Your task to perform on an android device: change the clock style Image 0: 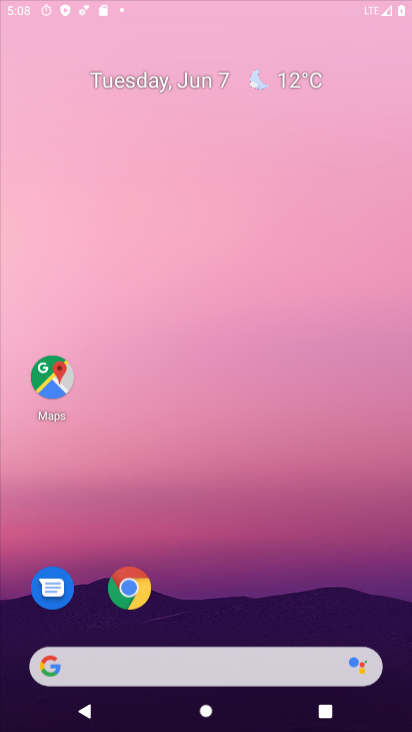
Step 0: drag from (193, 286) to (188, 10)
Your task to perform on an android device: change the clock style Image 1: 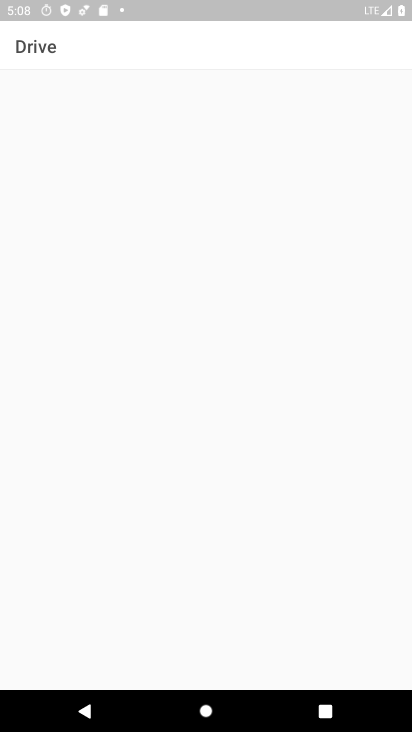
Step 1: press home button
Your task to perform on an android device: change the clock style Image 2: 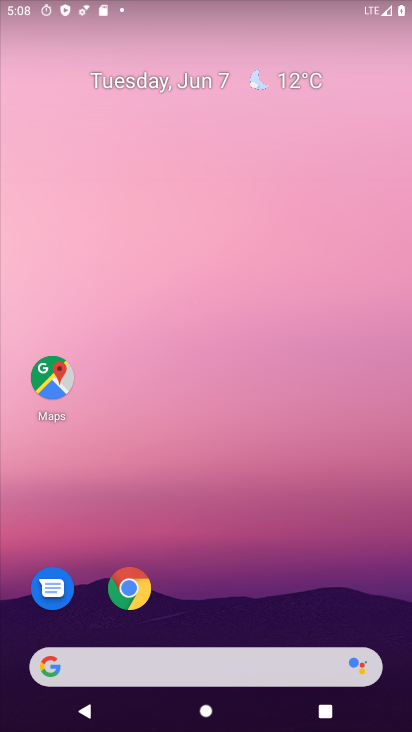
Step 2: drag from (206, 639) to (182, 122)
Your task to perform on an android device: change the clock style Image 3: 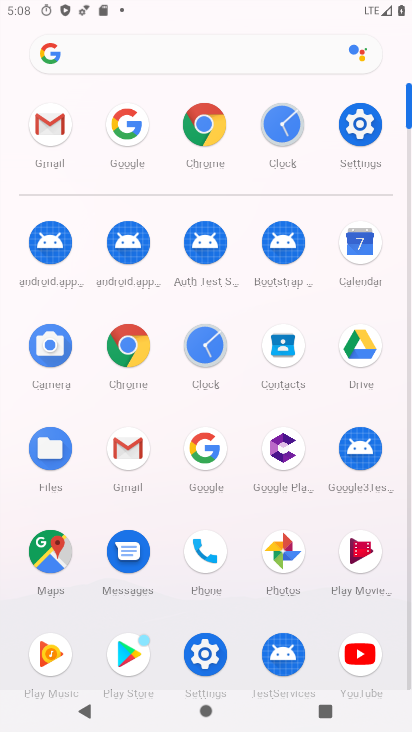
Step 3: click (205, 356)
Your task to perform on an android device: change the clock style Image 4: 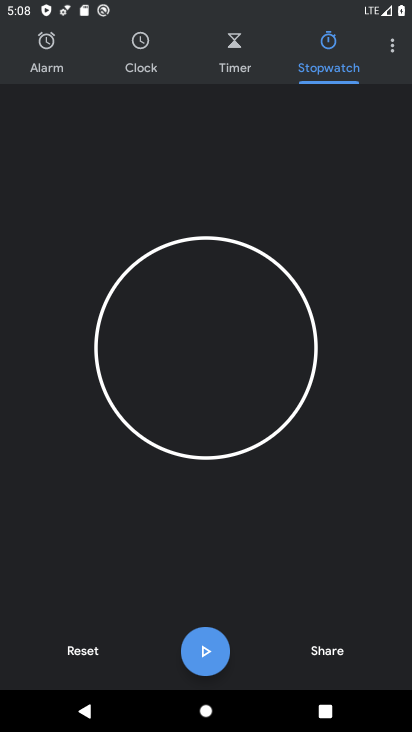
Step 4: click (392, 58)
Your task to perform on an android device: change the clock style Image 5: 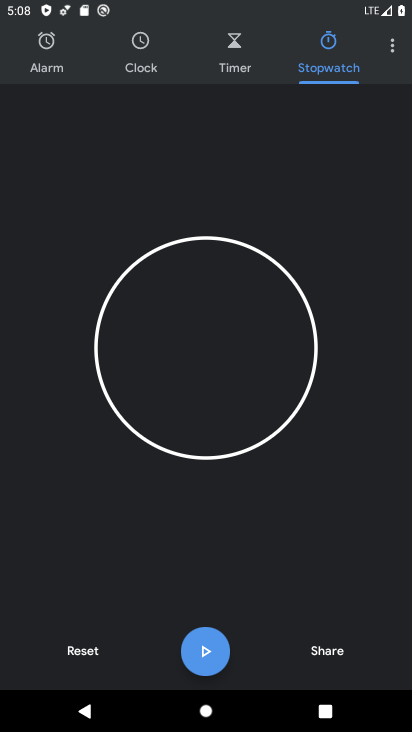
Step 5: click (388, 56)
Your task to perform on an android device: change the clock style Image 6: 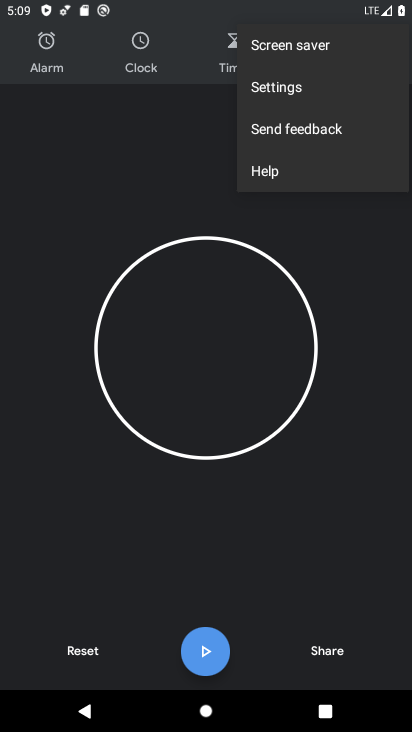
Step 6: click (298, 92)
Your task to perform on an android device: change the clock style Image 7: 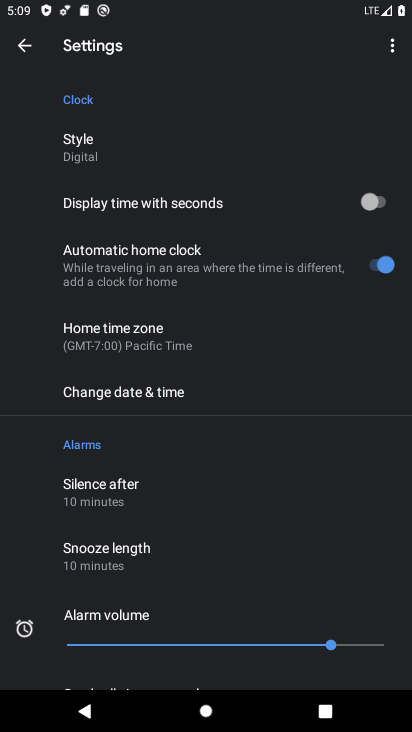
Step 7: click (86, 146)
Your task to perform on an android device: change the clock style Image 8: 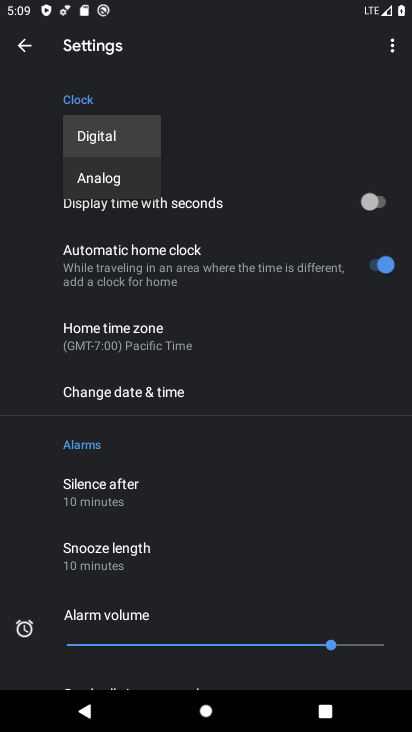
Step 8: click (118, 184)
Your task to perform on an android device: change the clock style Image 9: 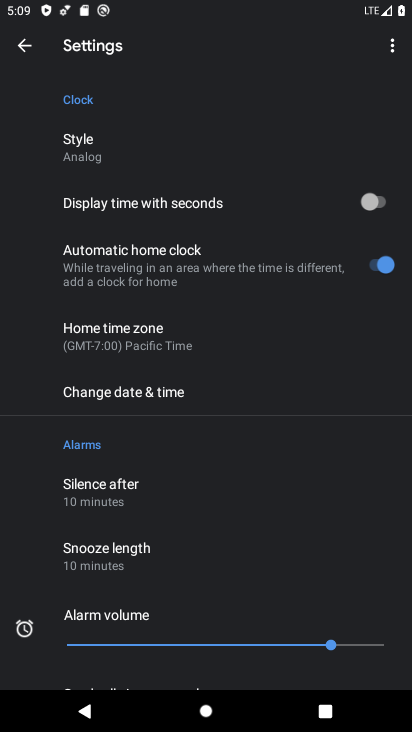
Step 9: task complete